Your task to perform on an android device: change alarm snooze length Image 0: 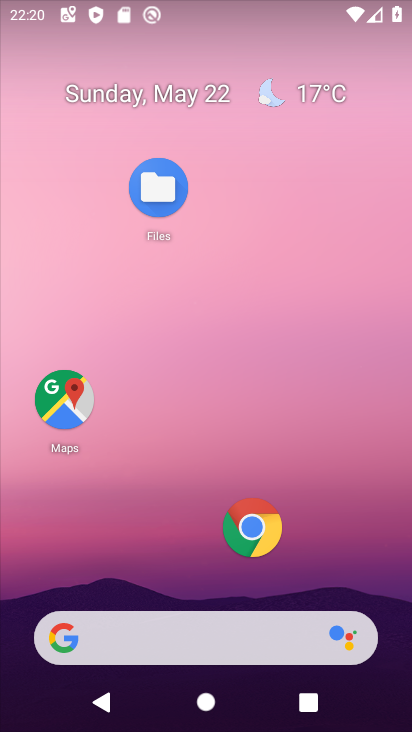
Step 0: drag from (159, 562) to (99, 108)
Your task to perform on an android device: change alarm snooze length Image 1: 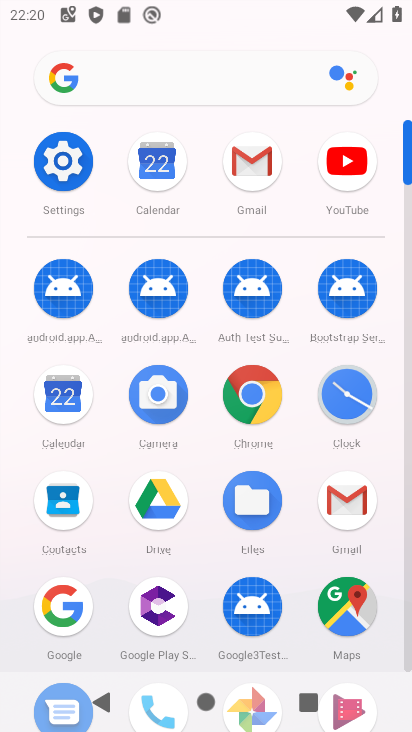
Step 1: click (325, 394)
Your task to perform on an android device: change alarm snooze length Image 2: 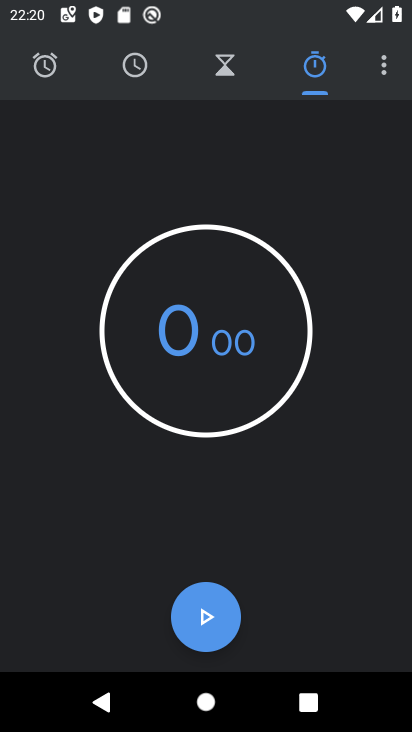
Step 2: click (384, 69)
Your task to perform on an android device: change alarm snooze length Image 3: 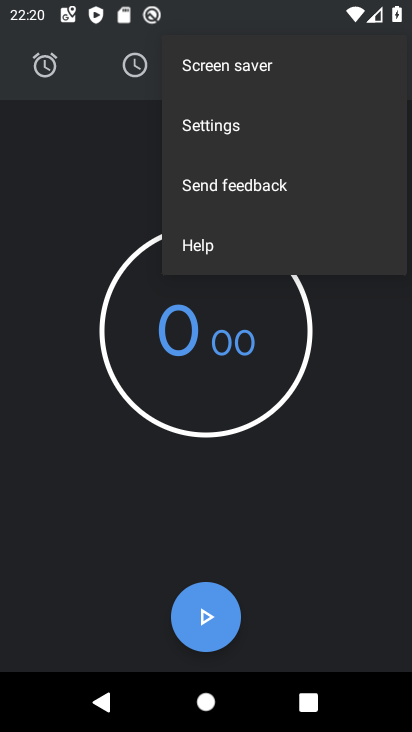
Step 3: click (223, 125)
Your task to perform on an android device: change alarm snooze length Image 4: 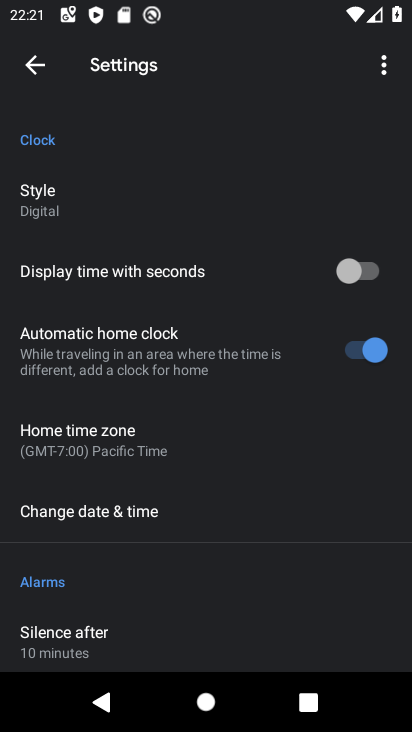
Step 4: drag from (217, 508) to (175, 218)
Your task to perform on an android device: change alarm snooze length Image 5: 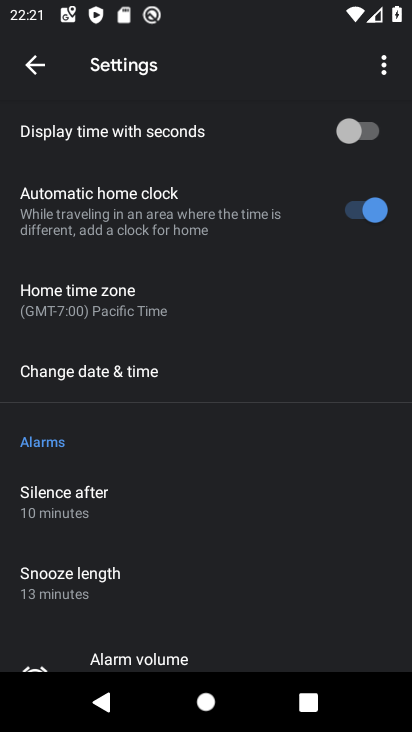
Step 5: click (77, 580)
Your task to perform on an android device: change alarm snooze length Image 6: 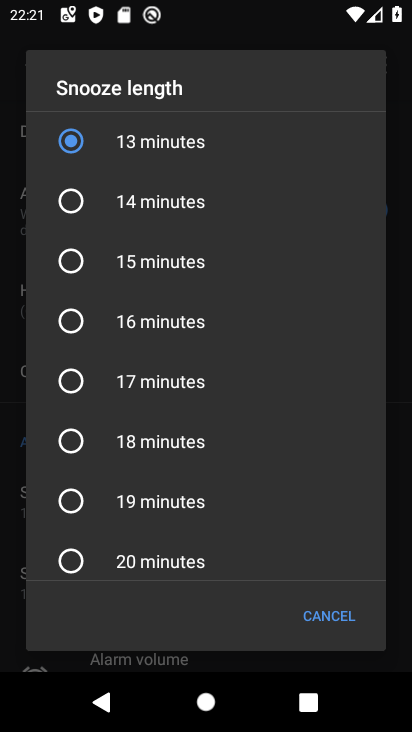
Step 6: click (75, 256)
Your task to perform on an android device: change alarm snooze length Image 7: 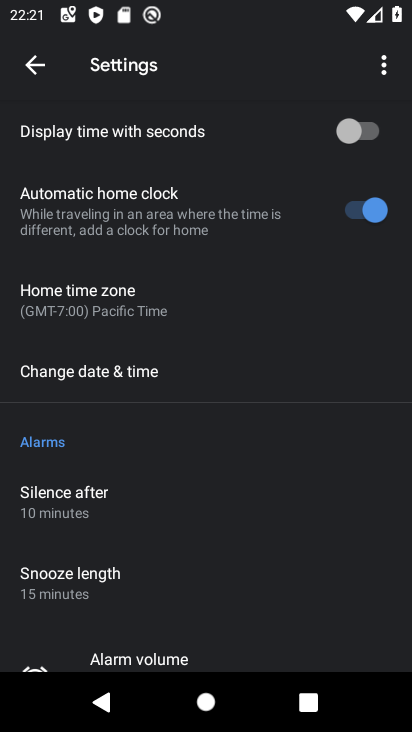
Step 7: task complete